Your task to perform on an android device: Open Chrome and go to the settings page Image 0: 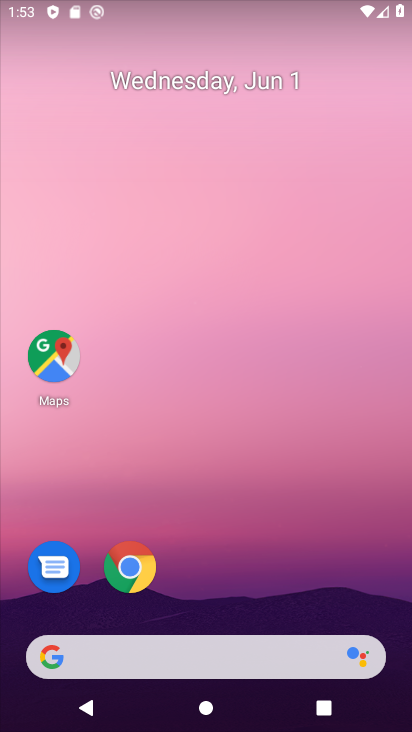
Step 0: click (131, 560)
Your task to perform on an android device: Open Chrome and go to the settings page Image 1: 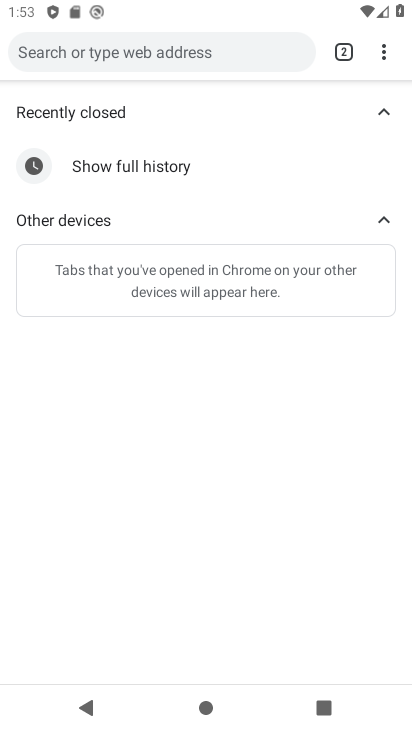
Step 1: click (383, 45)
Your task to perform on an android device: Open Chrome and go to the settings page Image 2: 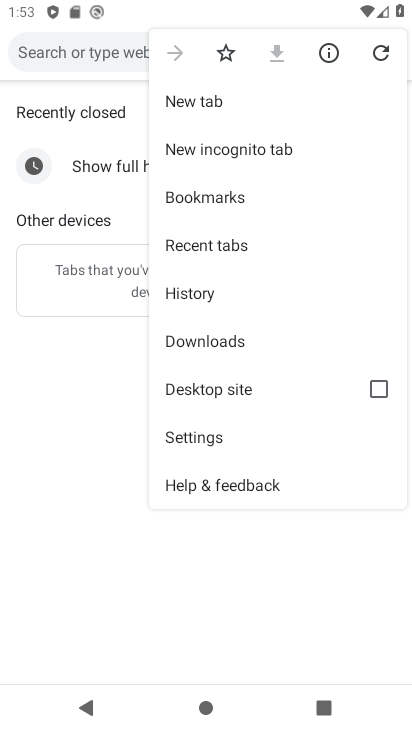
Step 2: click (202, 439)
Your task to perform on an android device: Open Chrome and go to the settings page Image 3: 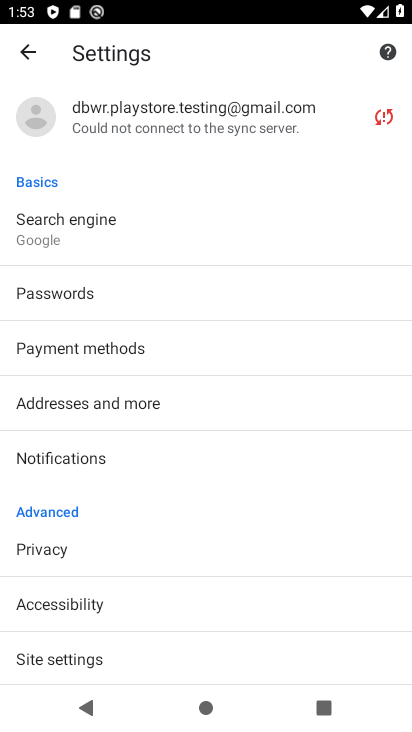
Step 3: task complete